Your task to perform on an android device: See recent photos Image 0: 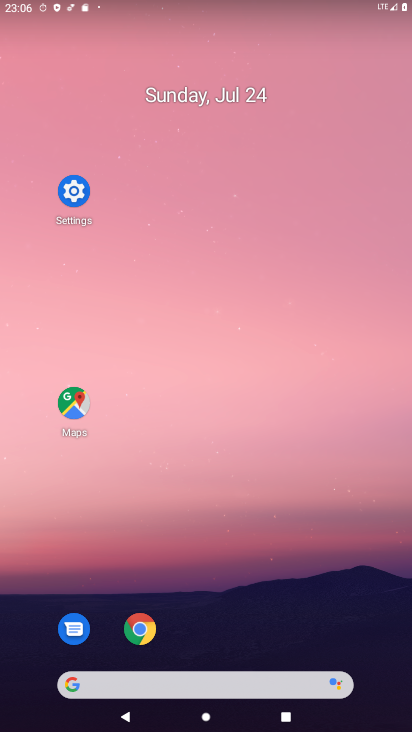
Step 0: click (139, 31)
Your task to perform on an android device: See recent photos Image 1: 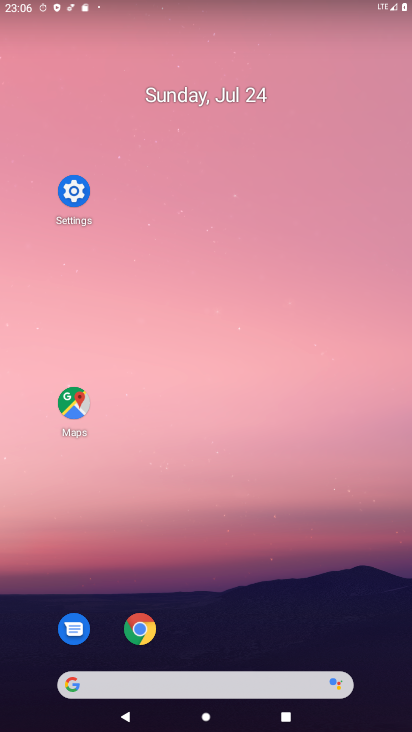
Step 1: drag from (286, 527) to (210, 14)
Your task to perform on an android device: See recent photos Image 2: 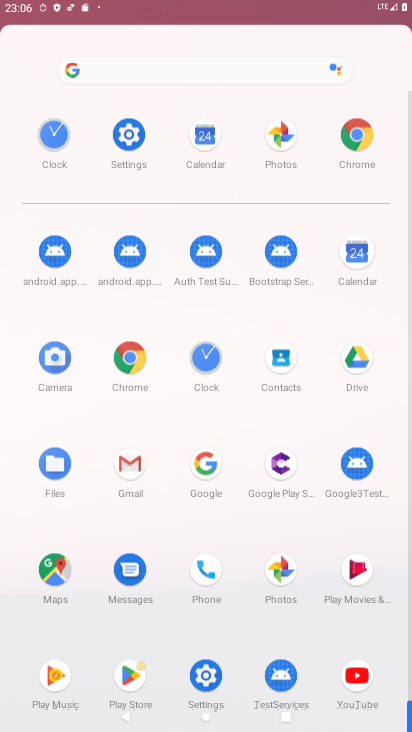
Step 2: drag from (178, 570) to (131, 53)
Your task to perform on an android device: See recent photos Image 3: 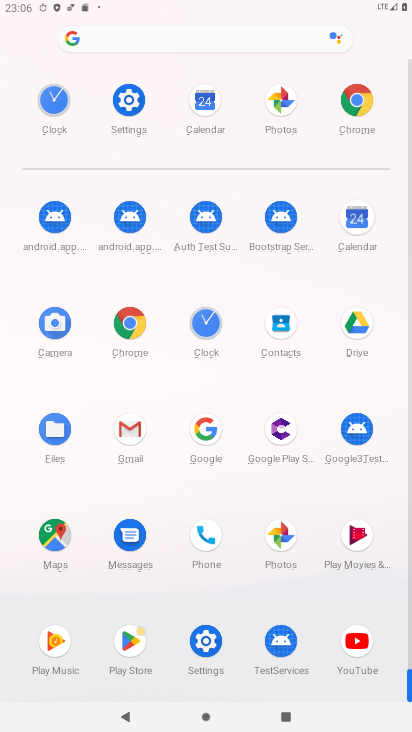
Step 3: drag from (148, 282) to (137, 167)
Your task to perform on an android device: See recent photos Image 4: 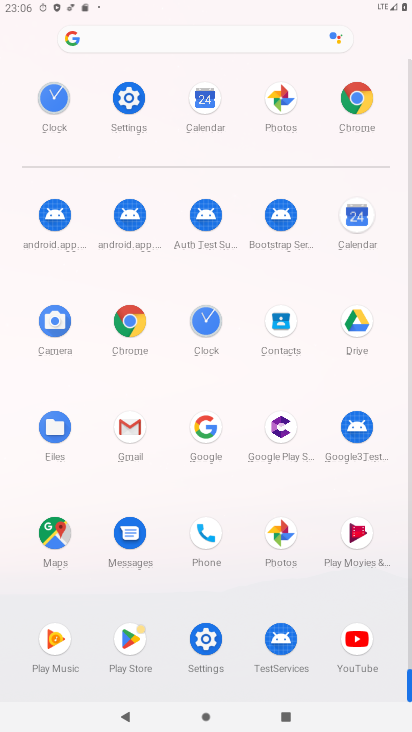
Step 4: click (277, 526)
Your task to perform on an android device: See recent photos Image 5: 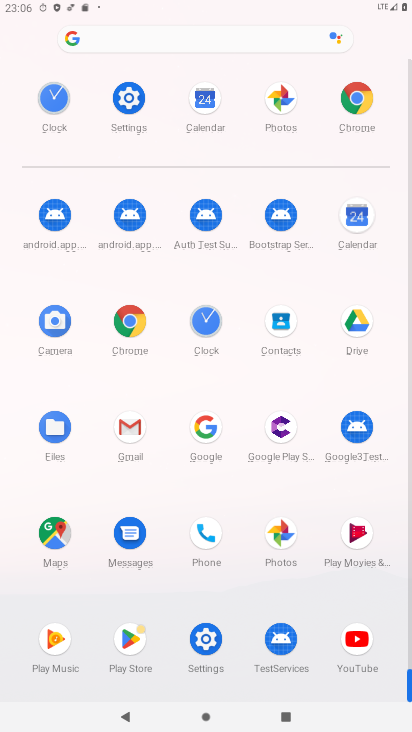
Step 5: click (281, 528)
Your task to perform on an android device: See recent photos Image 6: 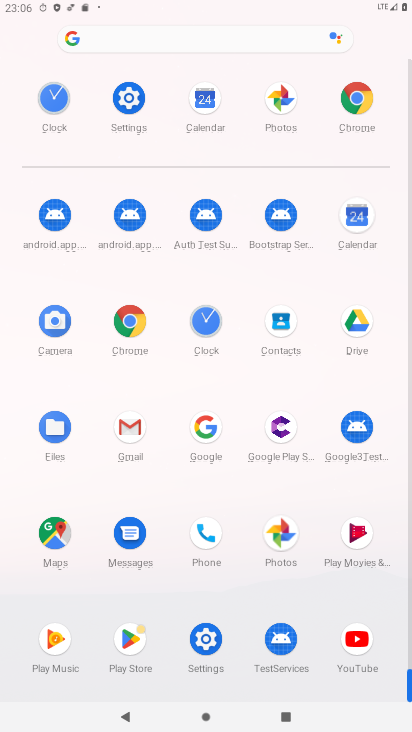
Step 6: click (282, 529)
Your task to perform on an android device: See recent photos Image 7: 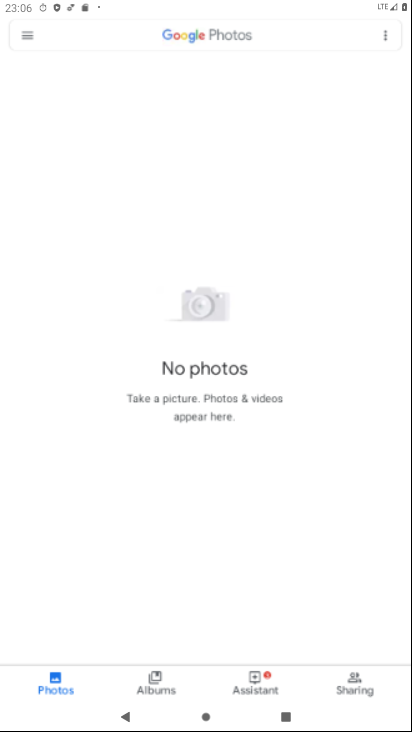
Step 7: click (290, 529)
Your task to perform on an android device: See recent photos Image 8: 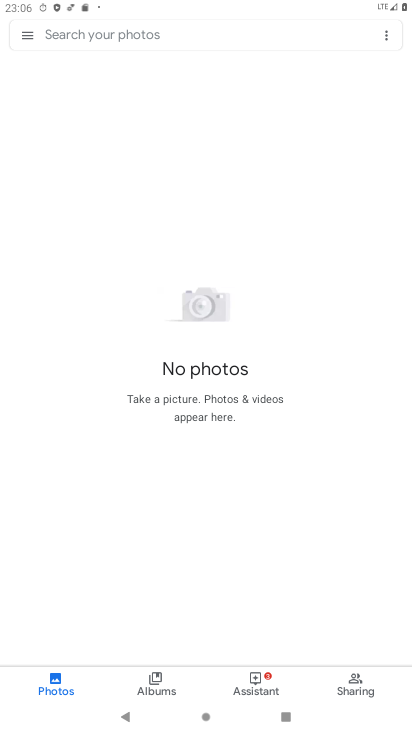
Step 8: click (47, 687)
Your task to perform on an android device: See recent photos Image 9: 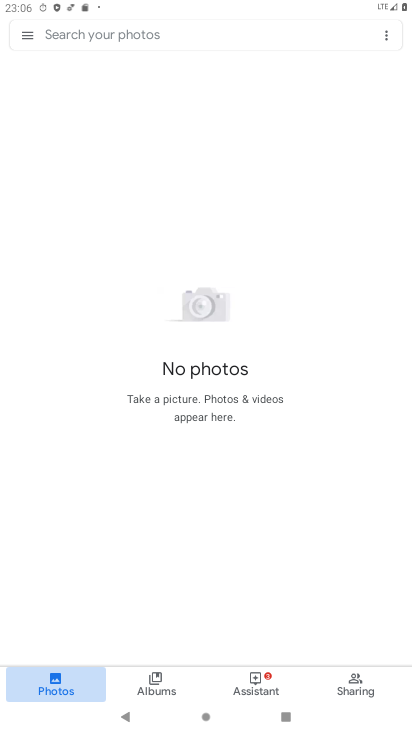
Step 9: click (52, 673)
Your task to perform on an android device: See recent photos Image 10: 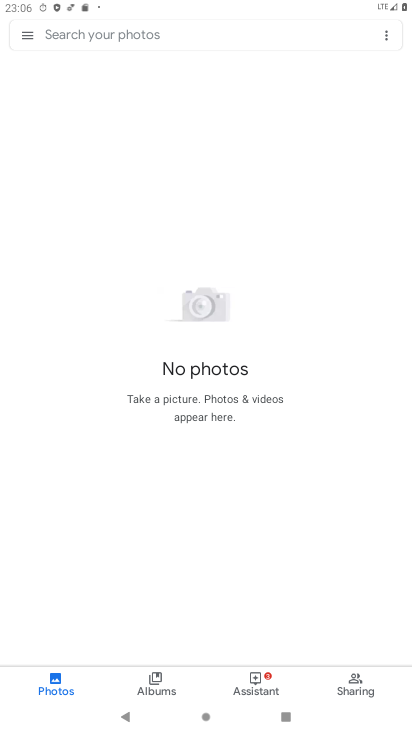
Step 10: task complete